Your task to perform on an android device: Search for seafood restaurants on Google Maps Image 0: 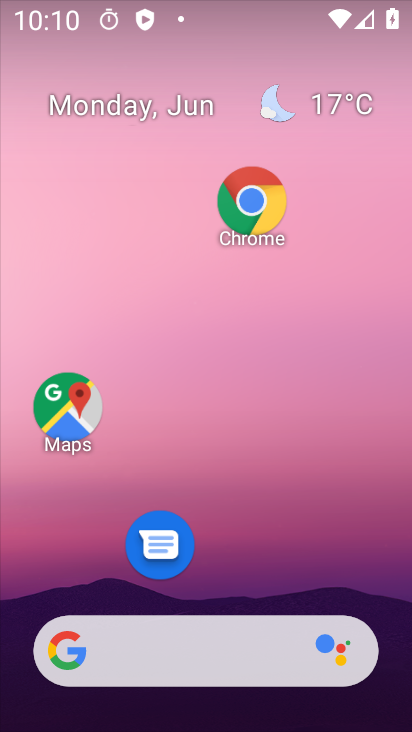
Step 0: click (98, 431)
Your task to perform on an android device: Search for seafood restaurants on Google Maps Image 1: 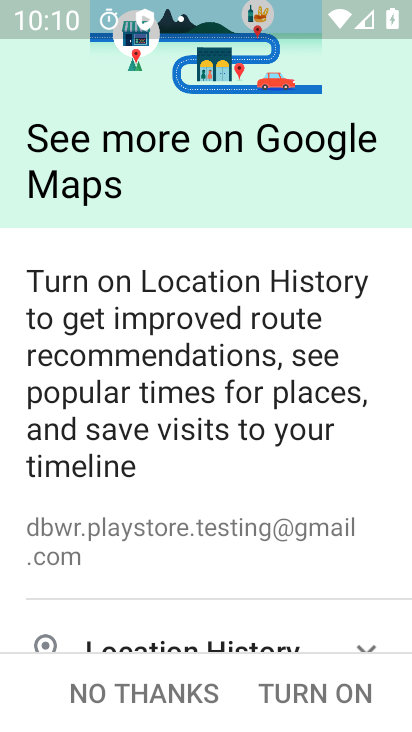
Step 1: press back button
Your task to perform on an android device: Search for seafood restaurants on Google Maps Image 2: 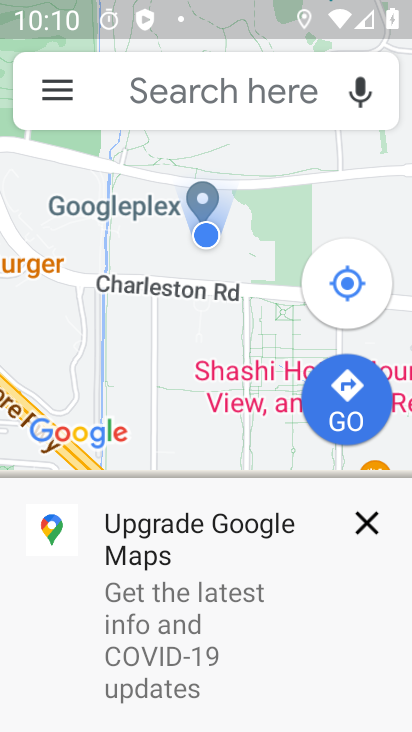
Step 2: click (172, 107)
Your task to perform on an android device: Search for seafood restaurants on Google Maps Image 3: 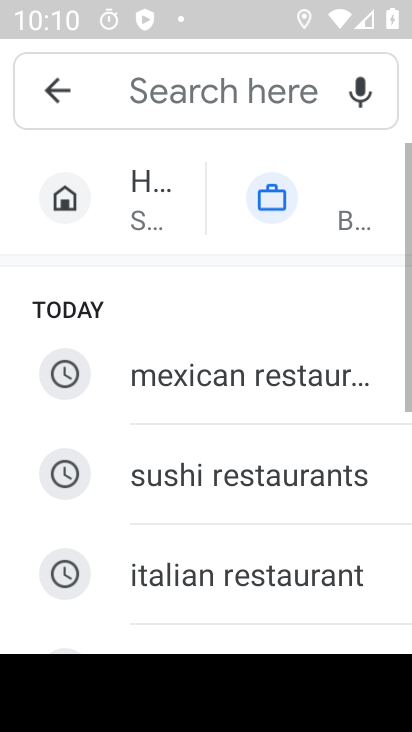
Step 3: drag from (216, 531) to (141, 42)
Your task to perform on an android device: Search for seafood restaurants on Google Maps Image 4: 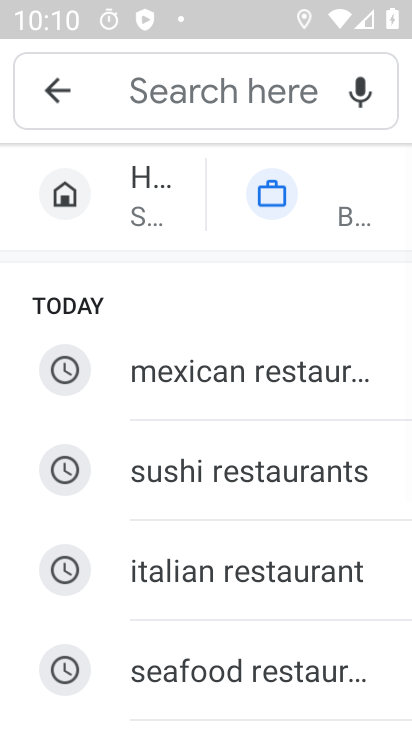
Step 4: click (153, 659)
Your task to perform on an android device: Search for seafood restaurants on Google Maps Image 5: 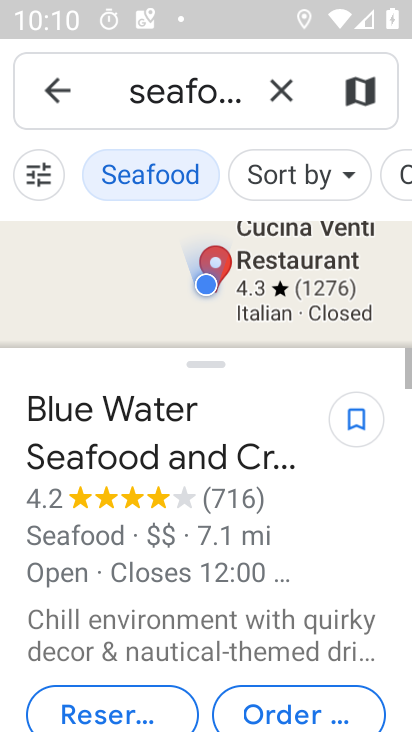
Step 5: task complete